Your task to perform on an android device: Open Chrome and go to the settings page Image 0: 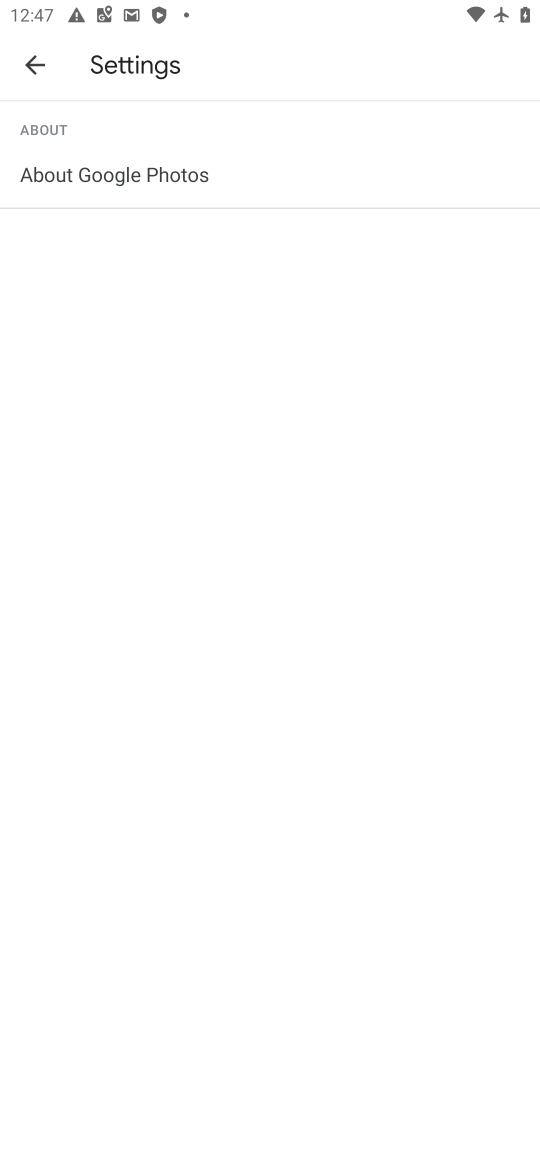
Step 0: task complete